Your task to perform on an android device: What's the weather today? Image 0: 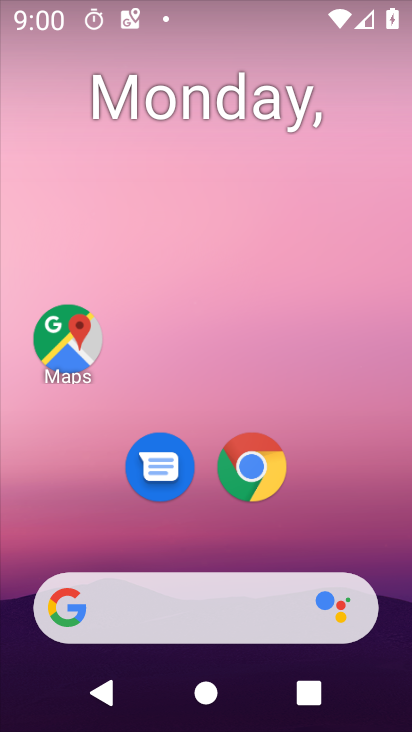
Step 0: click (194, 611)
Your task to perform on an android device: What's the weather today? Image 1: 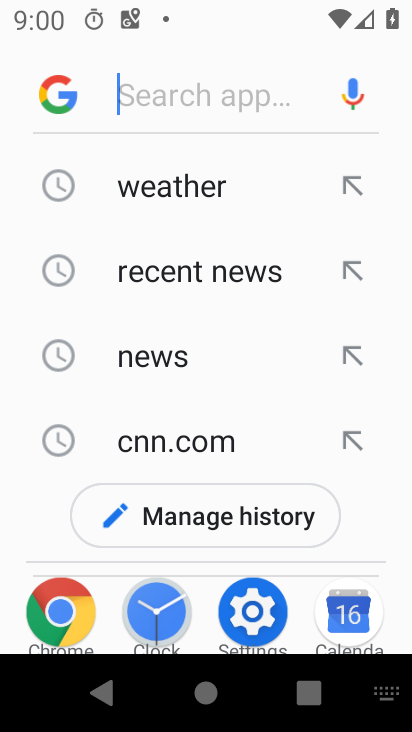
Step 1: click (234, 186)
Your task to perform on an android device: What's the weather today? Image 2: 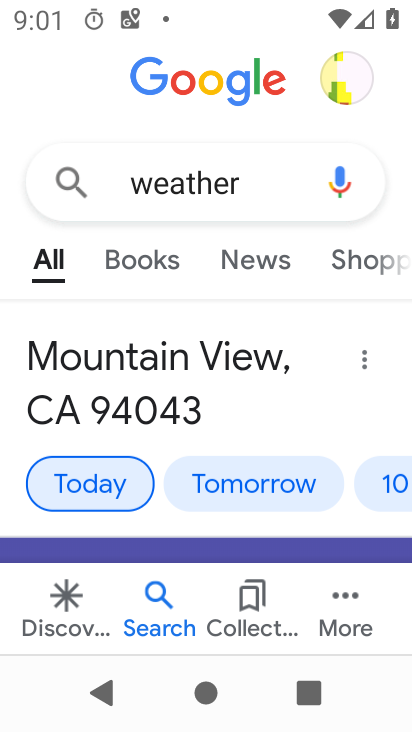
Step 2: task complete